Your task to perform on an android device: Search for Mexican restaurants on Maps Image 0: 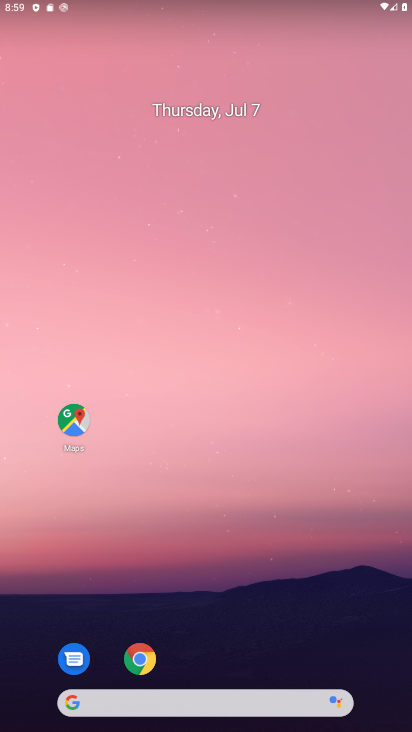
Step 0: click (70, 422)
Your task to perform on an android device: Search for Mexican restaurants on Maps Image 1: 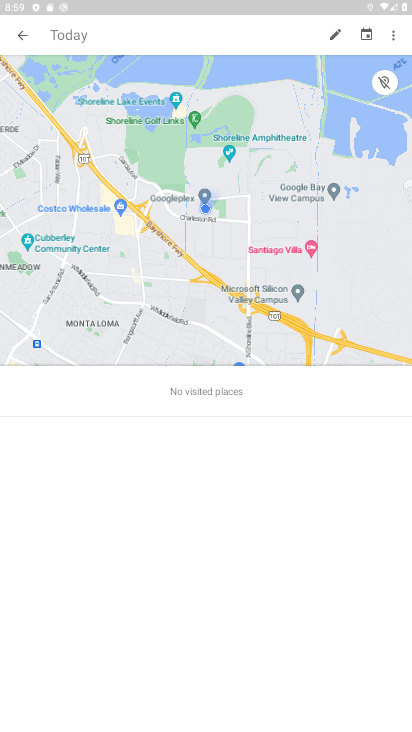
Step 1: click (17, 32)
Your task to perform on an android device: Search for Mexican restaurants on Maps Image 2: 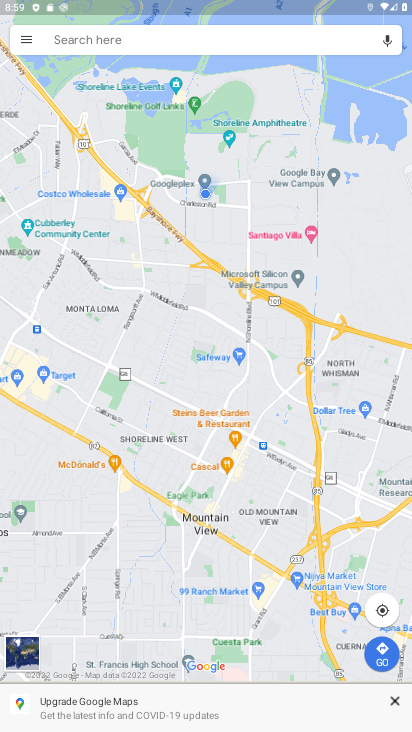
Step 2: click (155, 45)
Your task to perform on an android device: Search for Mexican restaurants on Maps Image 3: 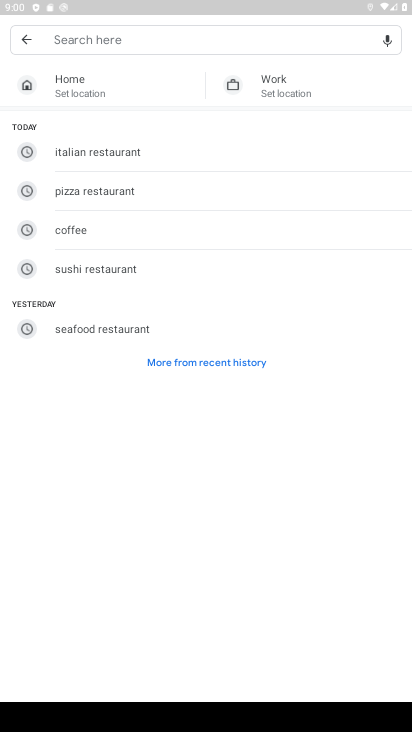
Step 3: type "mexican restaurants"
Your task to perform on an android device: Search for Mexican restaurants on Maps Image 4: 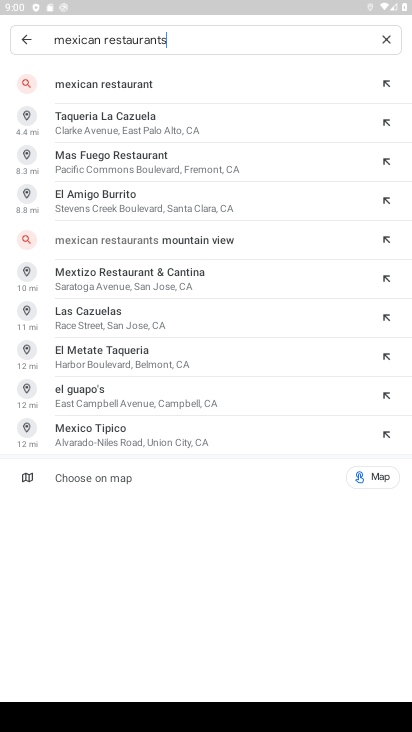
Step 4: click (157, 105)
Your task to perform on an android device: Search for Mexican restaurants on Maps Image 5: 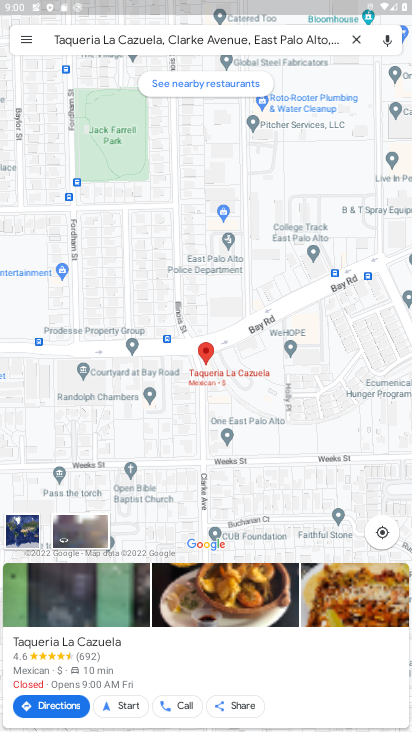
Step 5: task complete